Your task to perform on an android device: Go to display settings Image 0: 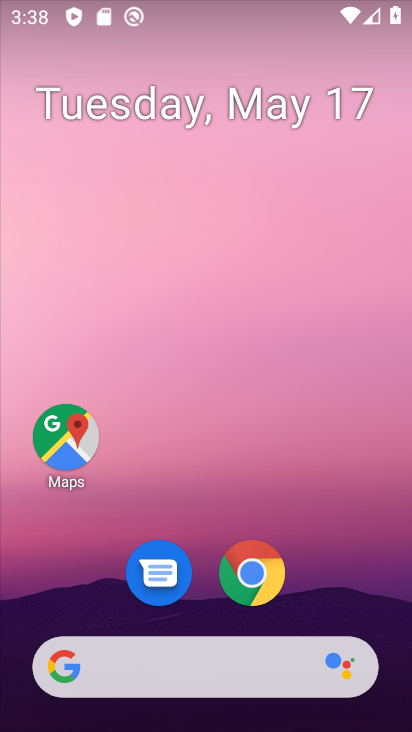
Step 0: drag from (351, 600) to (270, 98)
Your task to perform on an android device: Go to display settings Image 1: 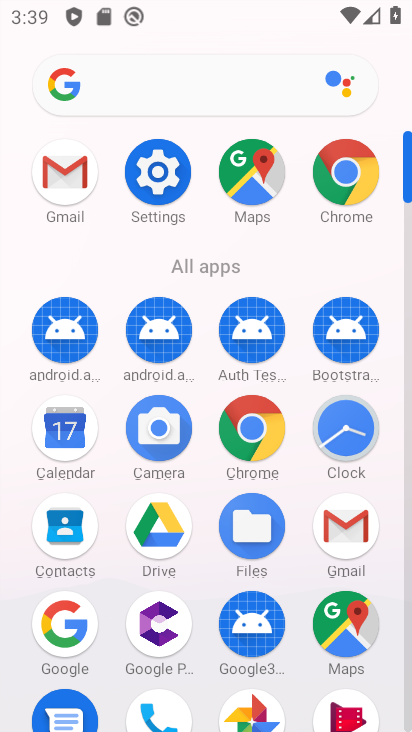
Step 1: click (158, 176)
Your task to perform on an android device: Go to display settings Image 2: 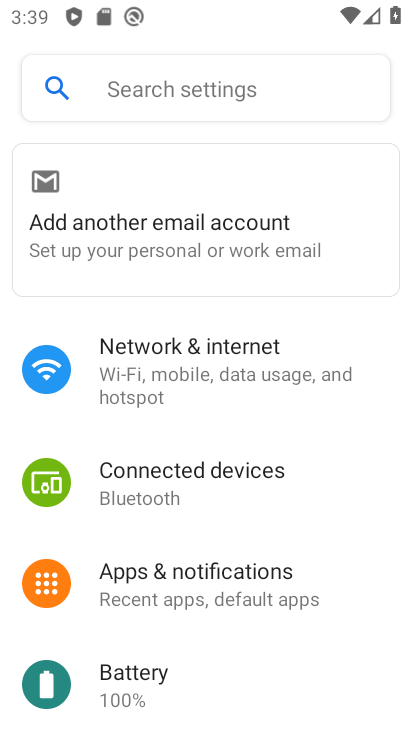
Step 2: drag from (249, 669) to (225, 116)
Your task to perform on an android device: Go to display settings Image 3: 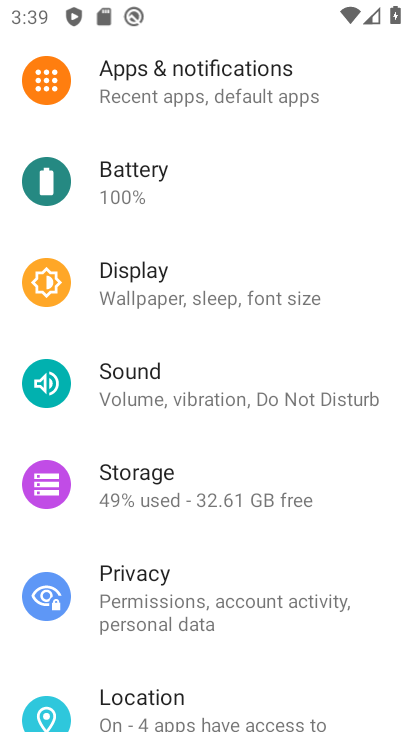
Step 3: click (245, 274)
Your task to perform on an android device: Go to display settings Image 4: 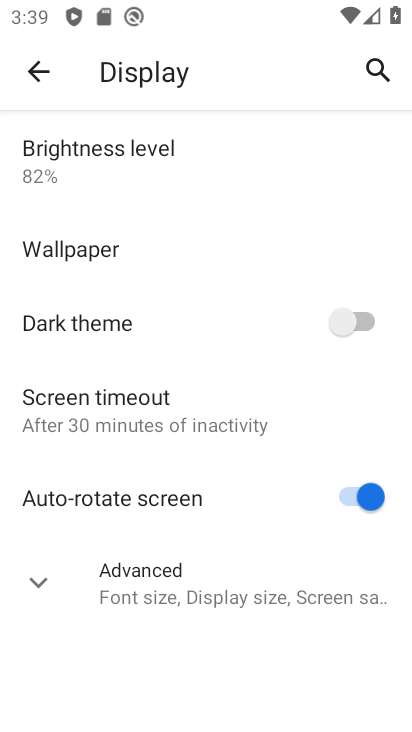
Step 4: task complete